Your task to perform on an android device: turn smart compose on in the gmail app Image 0: 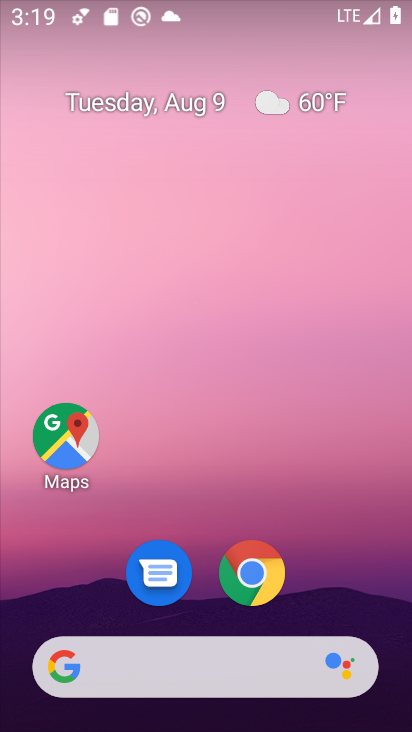
Step 0: drag from (386, 561) to (110, 36)
Your task to perform on an android device: turn smart compose on in the gmail app Image 1: 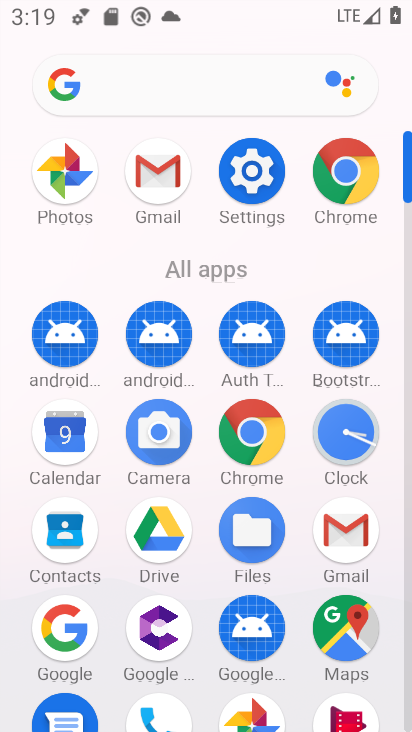
Step 1: click (163, 155)
Your task to perform on an android device: turn smart compose on in the gmail app Image 2: 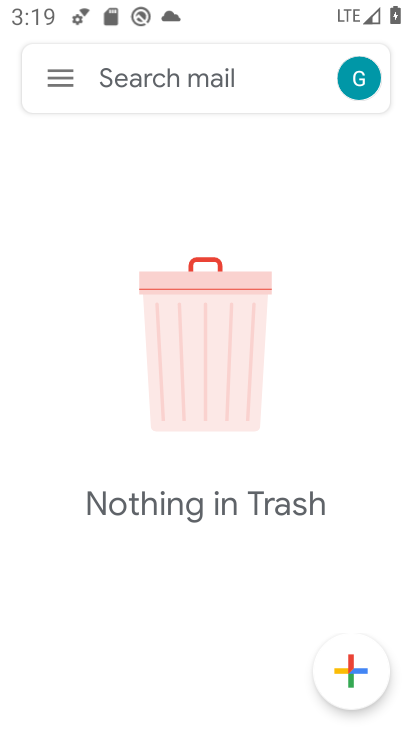
Step 2: click (55, 77)
Your task to perform on an android device: turn smart compose on in the gmail app Image 3: 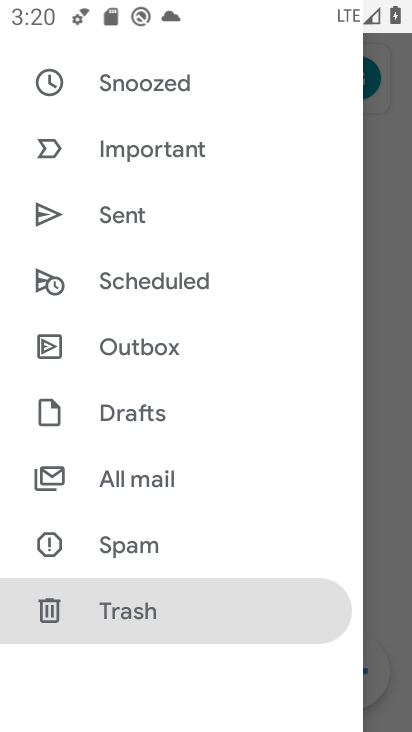
Step 3: drag from (171, 563) to (3, 78)
Your task to perform on an android device: turn smart compose on in the gmail app Image 4: 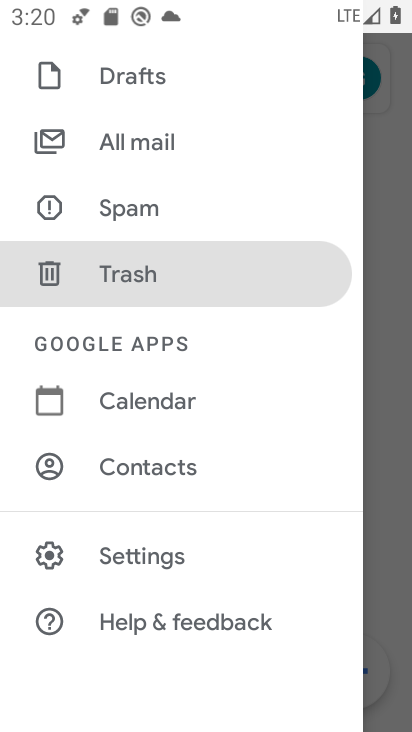
Step 4: click (135, 558)
Your task to perform on an android device: turn smart compose on in the gmail app Image 5: 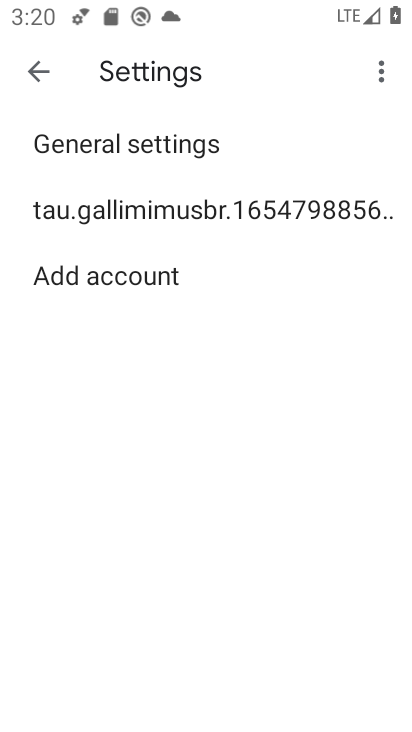
Step 5: click (179, 214)
Your task to perform on an android device: turn smart compose on in the gmail app Image 6: 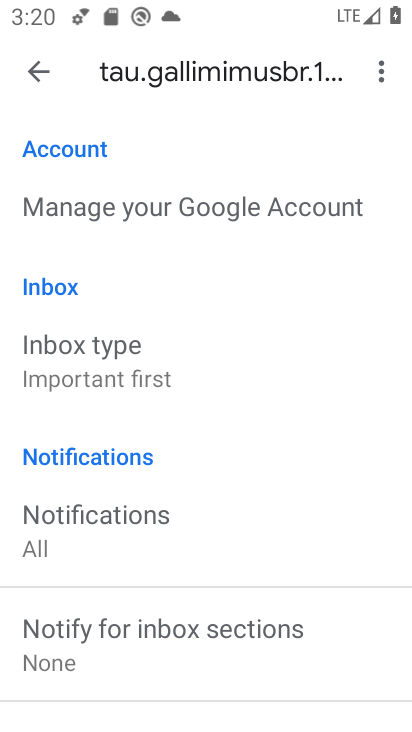
Step 6: task complete